Your task to perform on an android device: change the upload size in google photos Image 0: 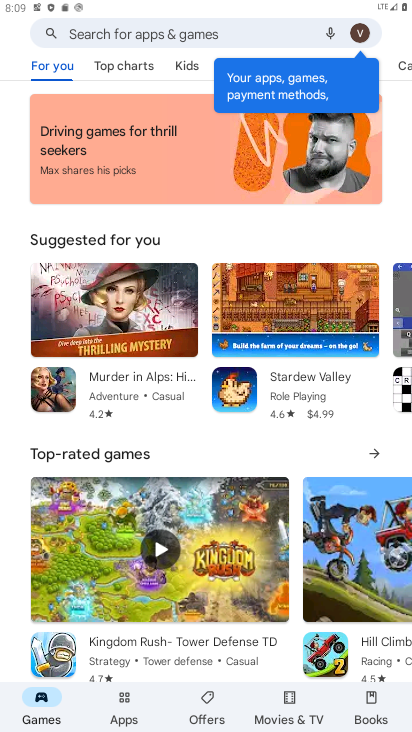
Step 0: press home button
Your task to perform on an android device: change the upload size in google photos Image 1: 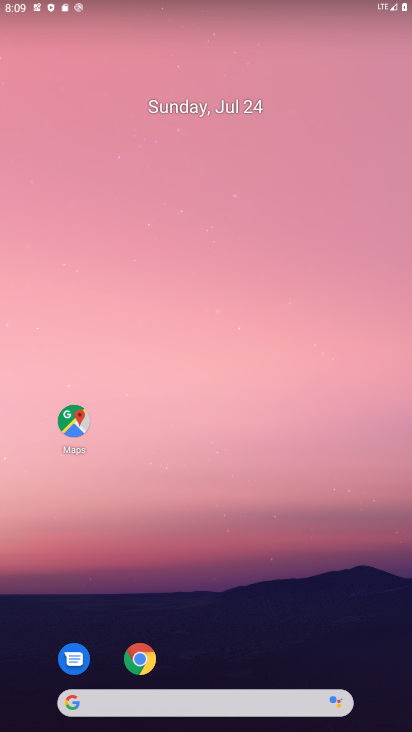
Step 1: drag from (220, 723) to (220, 294)
Your task to perform on an android device: change the upload size in google photos Image 2: 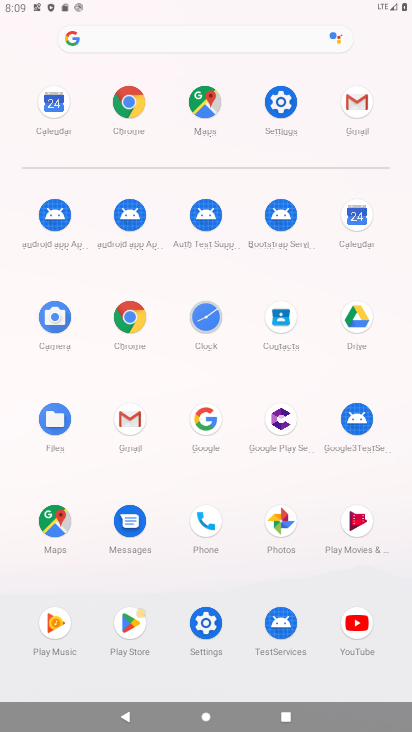
Step 2: click (284, 524)
Your task to perform on an android device: change the upload size in google photos Image 3: 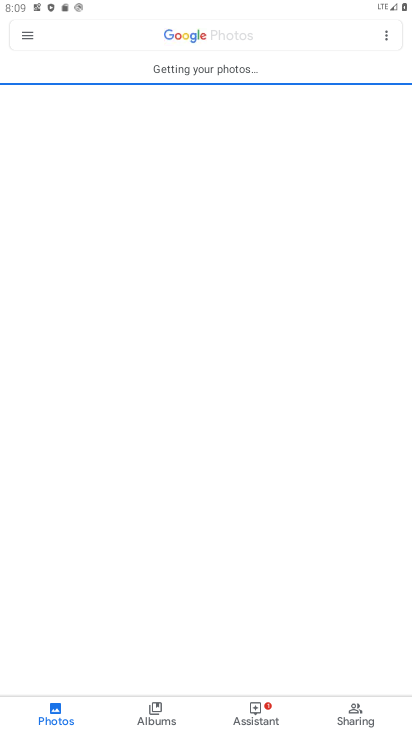
Step 3: click (25, 31)
Your task to perform on an android device: change the upload size in google photos Image 4: 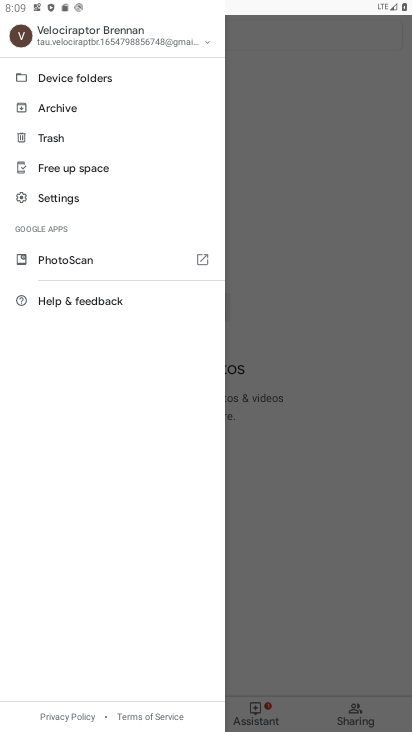
Step 4: click (64, 197)
Your task to perform on an android device: change the upload size in google photos Image 5: 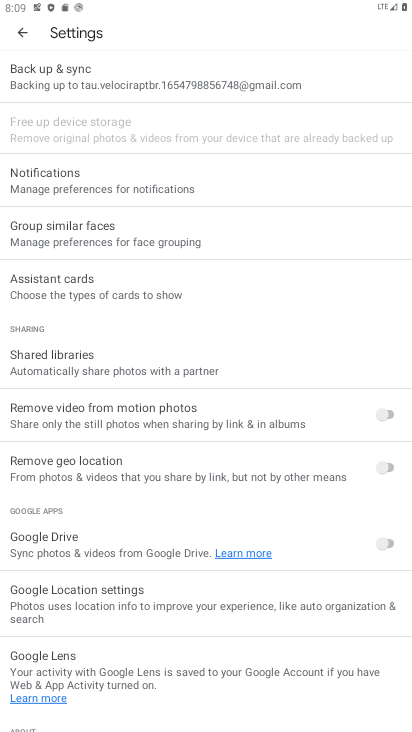
Step 5: click (73, 79)
Your task to perform on an android device: change the upload size in google photos Image 6: 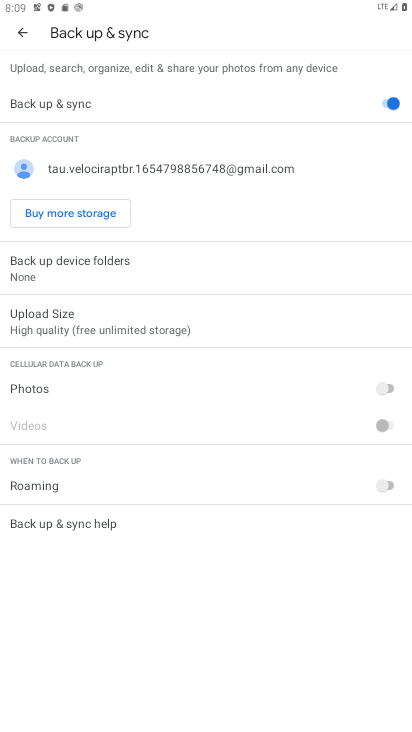
Step 6: click (63, 318)
Your task to perform on an android device: change the upload size in google photos Image 7: 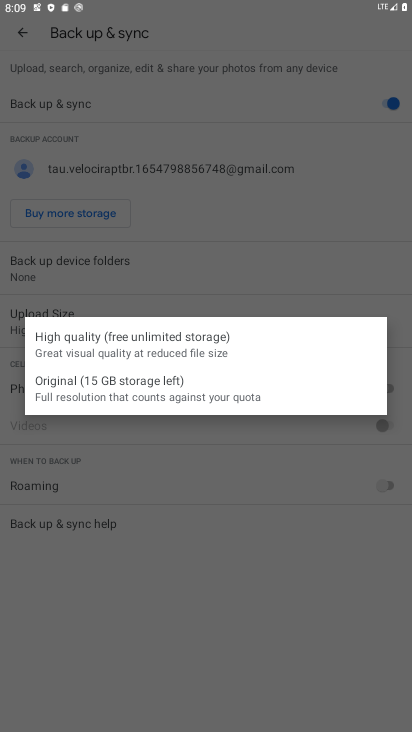
Step 7: click (81, 383)
Your task to perform on an android device: change the upload size in google photos Image 8: 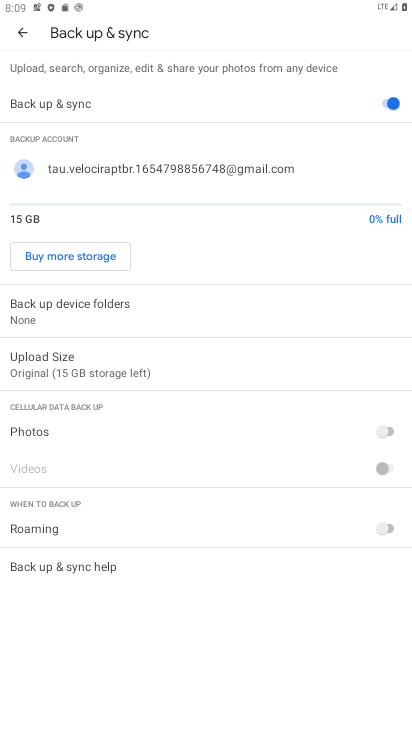
Step 8: task complete